Your task to perform on an android device: Check the news Image 0: 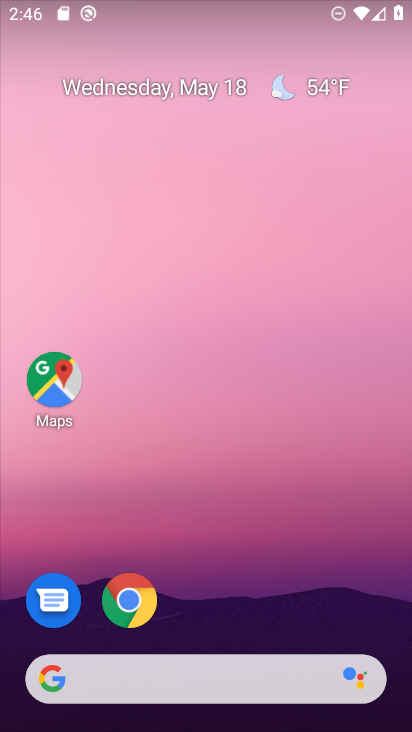
Step 0: click (200, 684)
Your task to perform on an android device: Check the news Image 1: 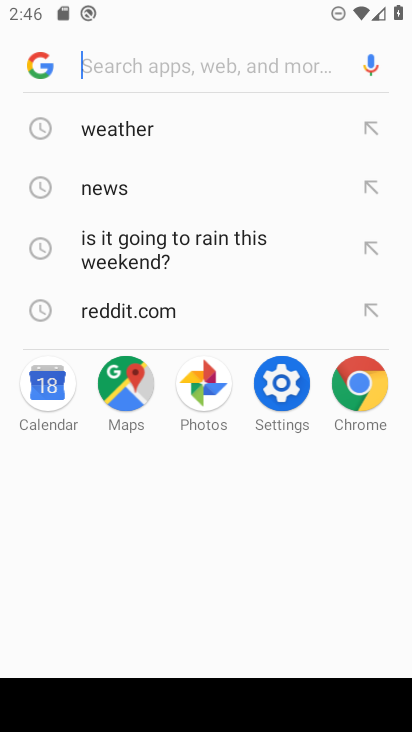
Step 1: click (123, 185)
Your task to perform on an android device: Check the news Image 2: 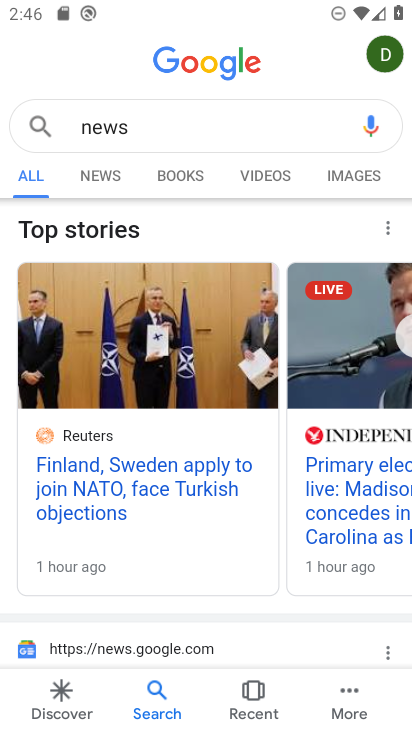
Step 2: task complete